Your task to perform on an android device: turn on airplane mode Image 0: 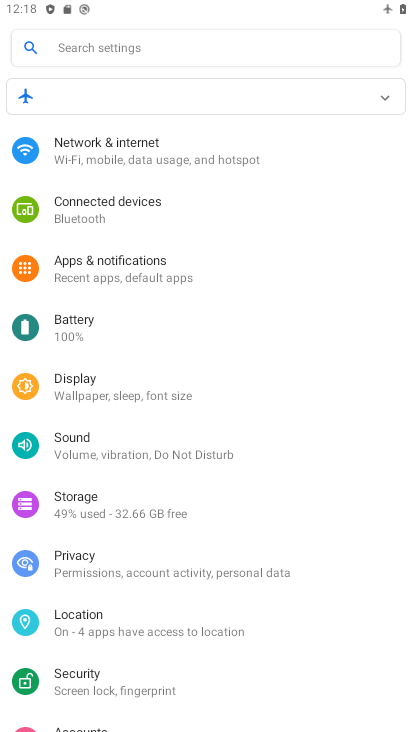
Step 0: click (233, 160)
Your task to perform on an android device: turn on airplane mode Image 1: 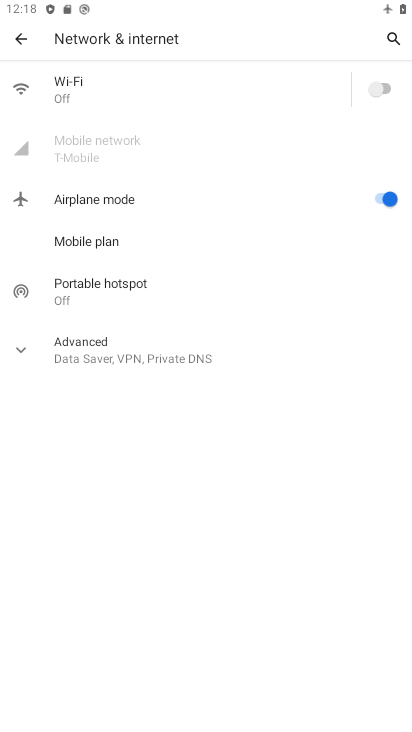
Step 1: task complete